Your task to perform on an android device: turn notification dots on Image 0: 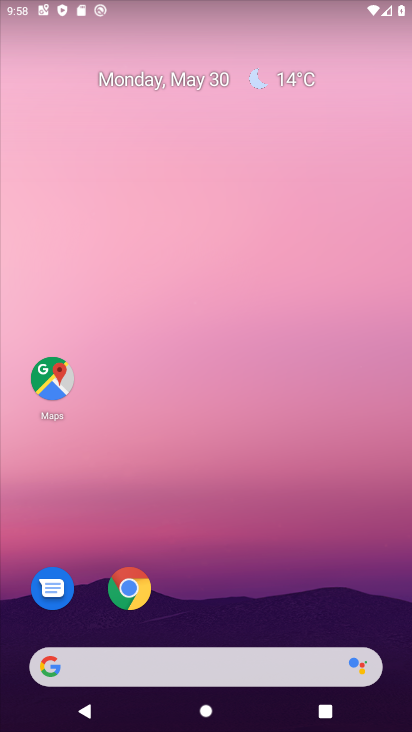
Step 0: drag from (212, 592) to (277, 3)
Your task to perform on an android device: turn notification dots on Image 1: 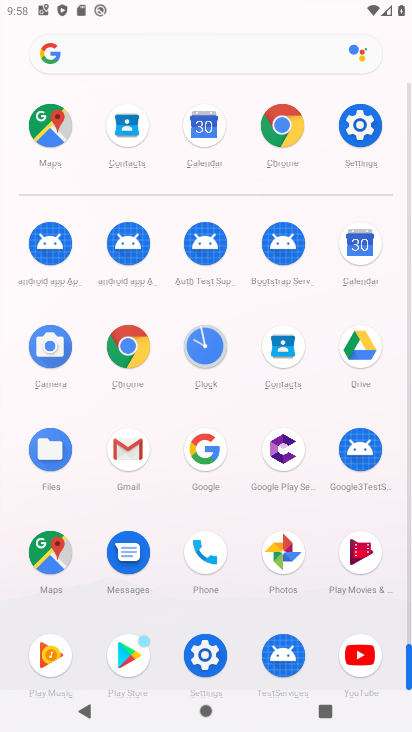
Step 1: click (362, 143)
Your task to perform on an android device: turn notification dots on Image 2: 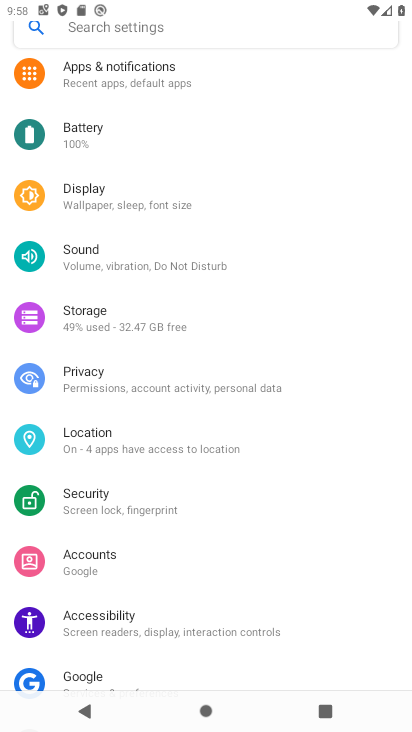
Step 2: click (172, 75)
Your task to perform on an android device: turn notification dots on Image 3: 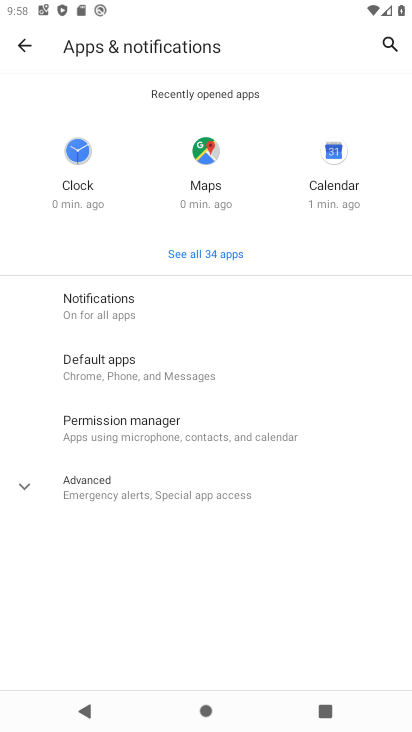
Step 3: click (147, 296)
Your task to perform on an android device: turn notification dots on Image 4: 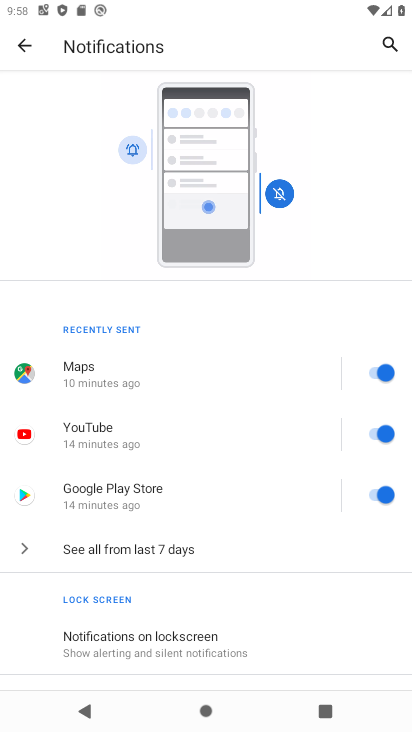
Step 4: drag from (176, 632) to (294, 82)
Your task to perform on an android device: turn notification dots on Image 5: 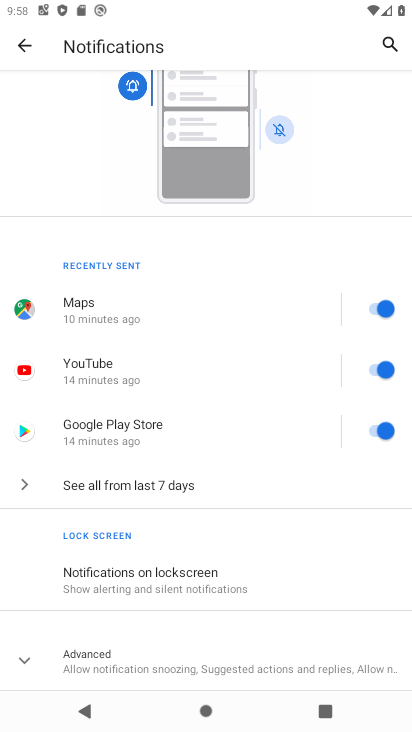
Step 5: click (143, 668)
Your task to perform on an android device: turn notification dots on Image 6: 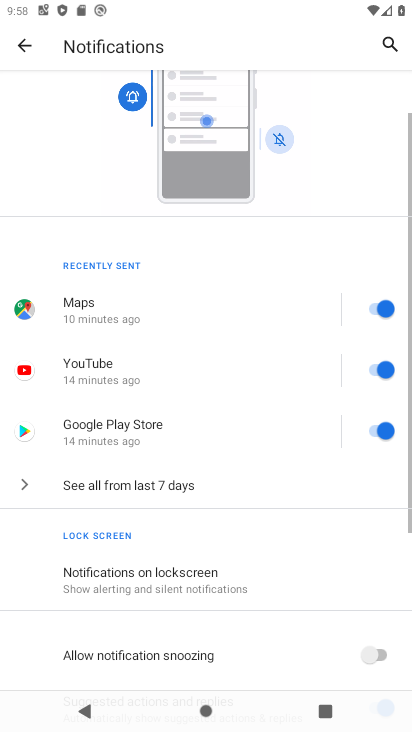
Step 6: task complete